Your task to perform on an android device: Go to ESPN.com Image 0: 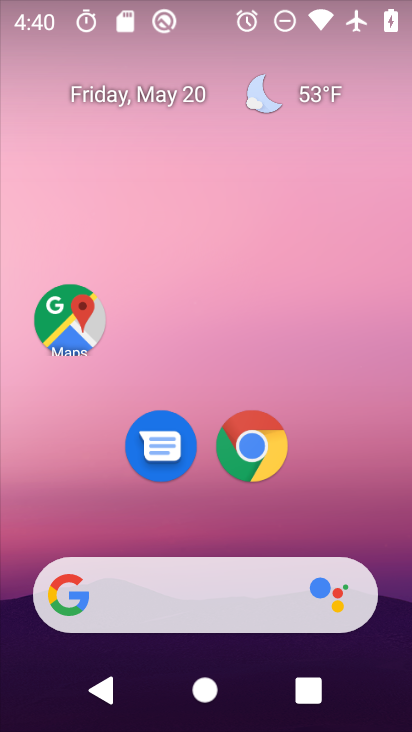
Step 0: drag from (374, 452) to (408, 222)
Your task to perform on an android device: Go to ESPN.com Image 1: 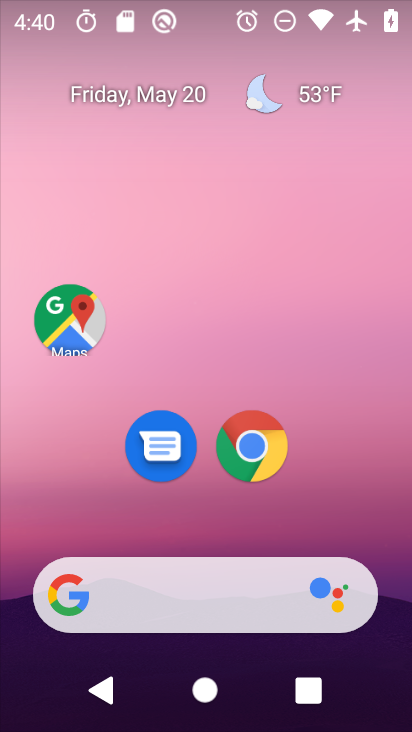
Step 1: click (256, 430)
Your task to perform on an android device: Go to ESPN.com Image 2: 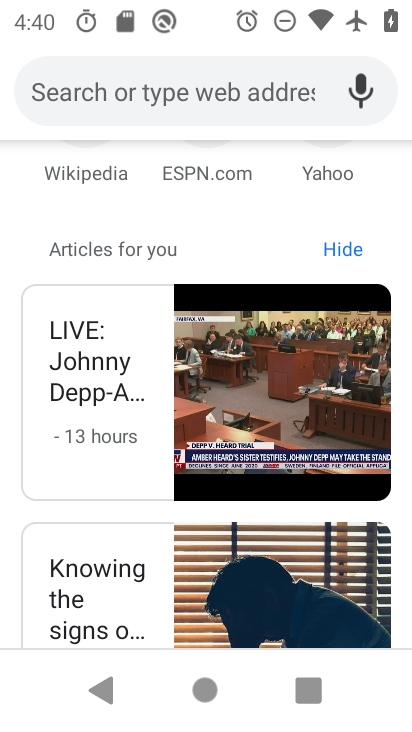
Step 2: click (186, 168)
Your task to perform on an android device: Go to ESPN.com Image 3: 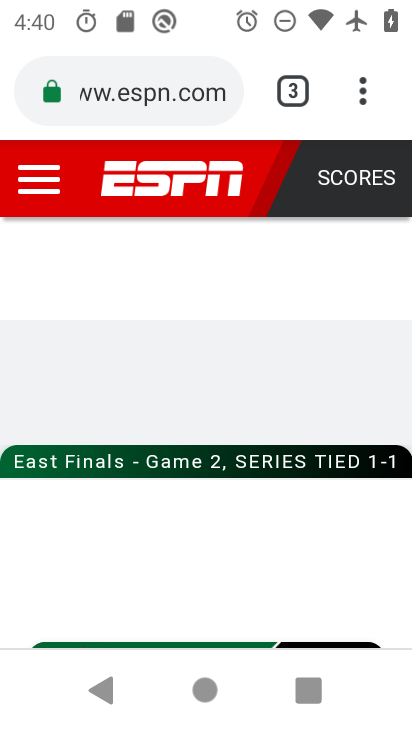
Step 3: task complete